Your task to perform on an android device: delete location history Image 0: 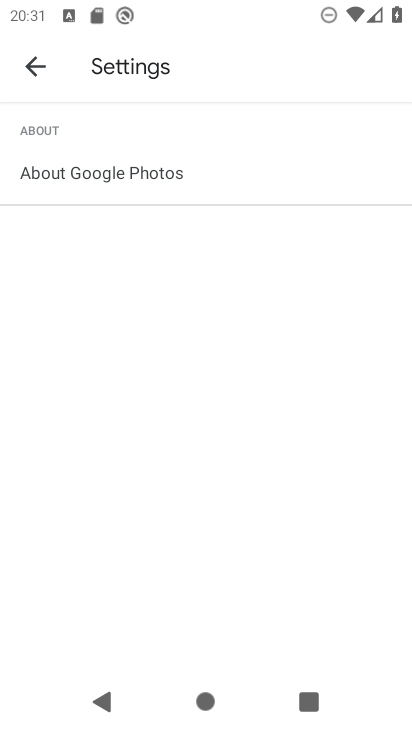
Step 0: press home button
Your task to perform on an android device: delete location history Image 1: 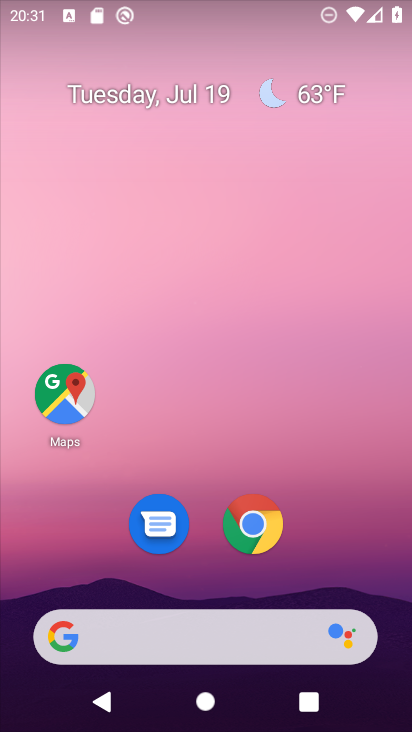
Step 1: click (57, 408)
Your task to perform on an android device: delete location history Image 2: 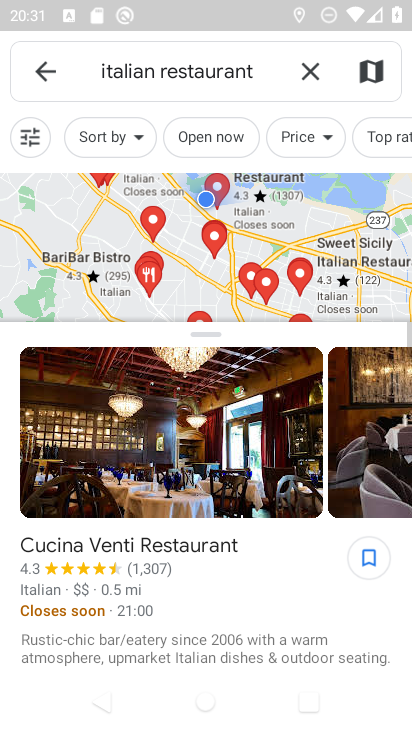
Step 2: click (39, 69)
Your task to perform on an android device: delete location history Image 3: 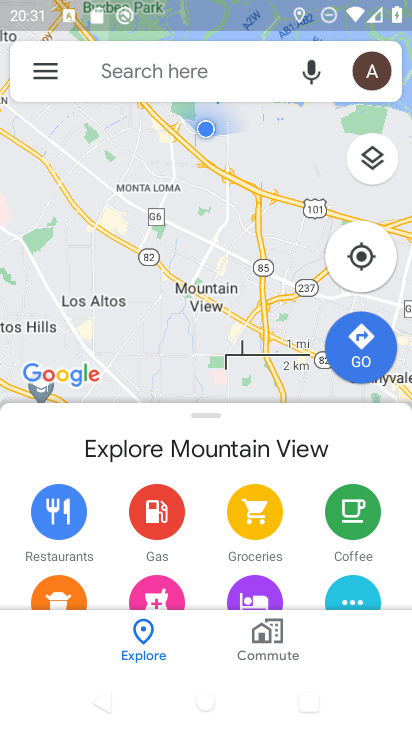
Step 3: click (39, 69)
Your task to perform on an android device: delete location history Image 4: 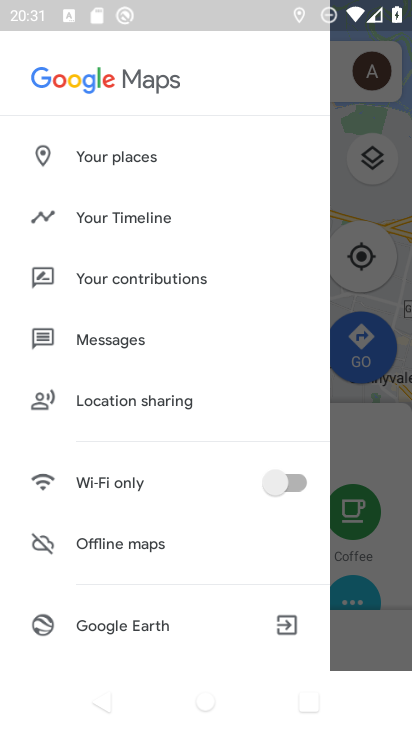
Step 4: click (126, 213)
Your task to perform on an android device: delete location history Image 5: 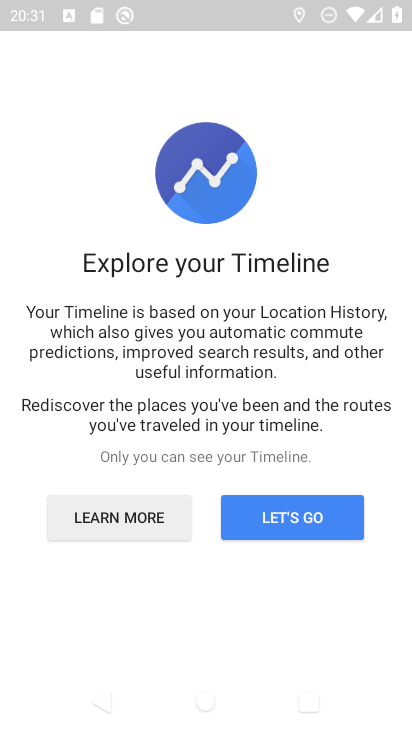
Step 5: click (291, 515)
Your task to perform on an android device: delete location history Image 6: 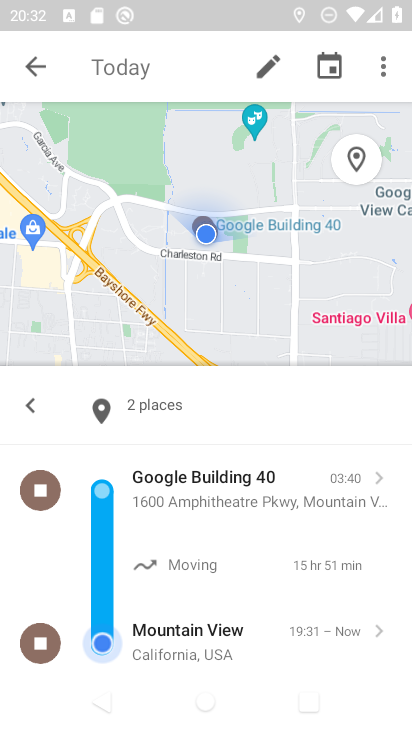
Step 6: click (380, 71)
Your task to perform on an android device: delete location history Image 7: 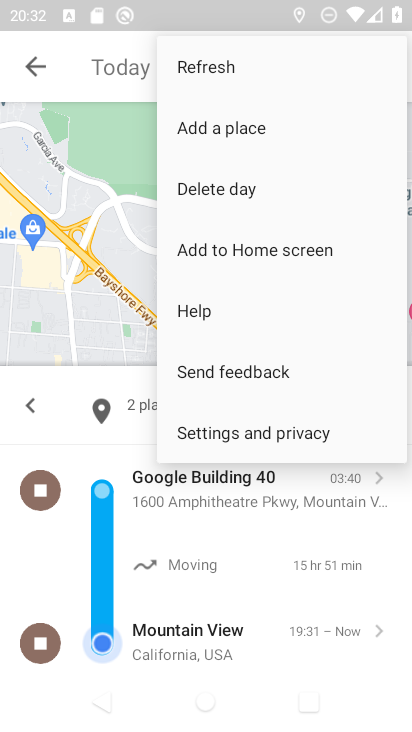
Step 7: click (291, 433)
Your task to perform on an android device: delete location history Image 8: 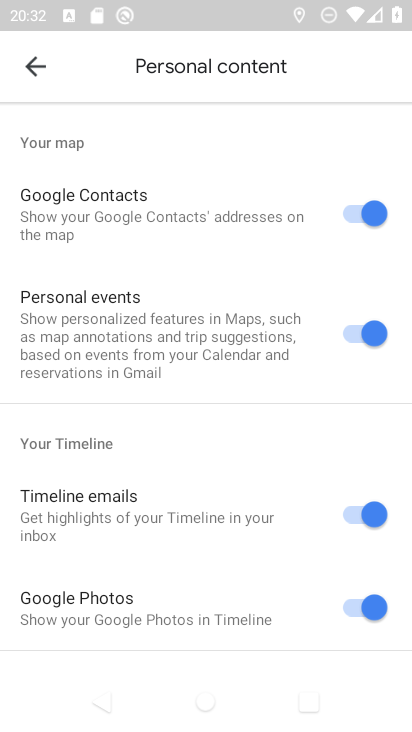
Step 8: drag from (226, 551) to (257, 128)
Your task to perform on an android device: delete location history Image 9: 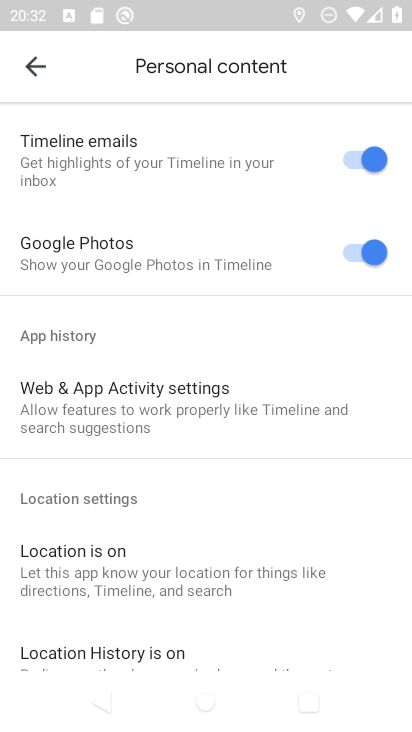
Step 9: drag from (227, 492) to (213, 116)
Your task to perform on an android device: delete location history Image 10: 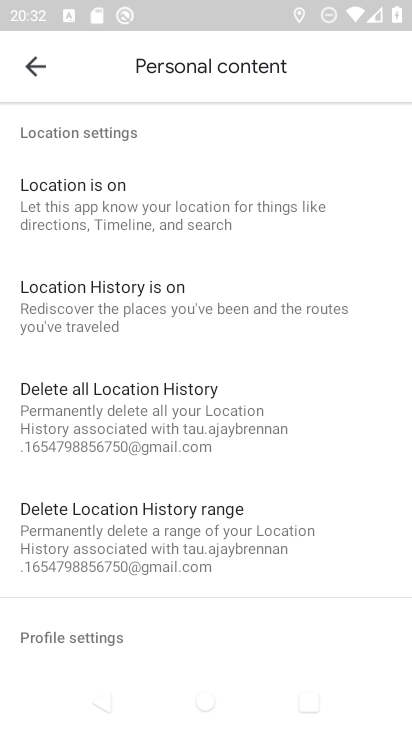
Step 10: click (202, 415)
Your task to perform on an android device: delete location history Image 11: 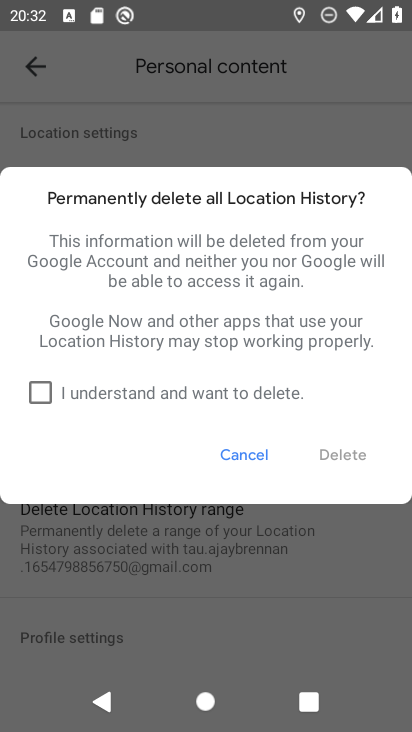
Step 11: click (41, 389)
Your task to perform on an android device: delete location history Image 12: 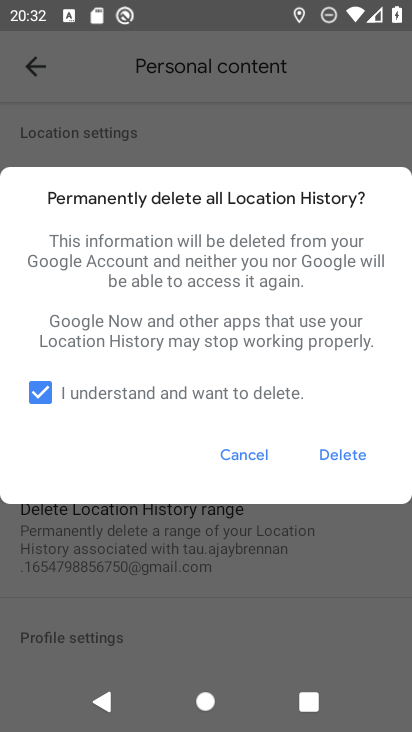
Step 12: click (338, 452)
Your task to perform on an android device: delete location history Image 13: 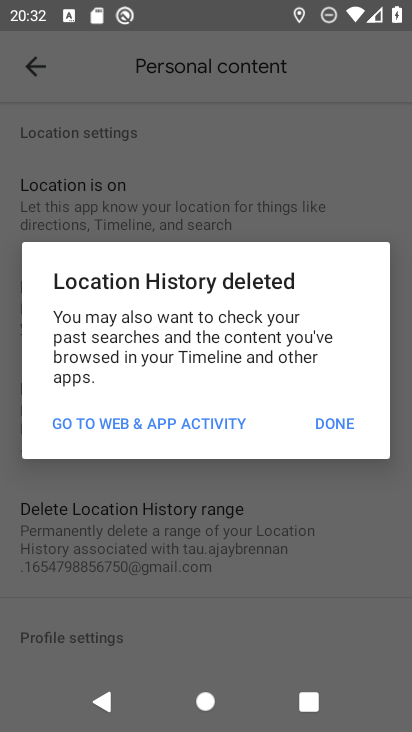
Step 13: click (333, 414)
Your task to perform on an android device: delete location history Image 14: 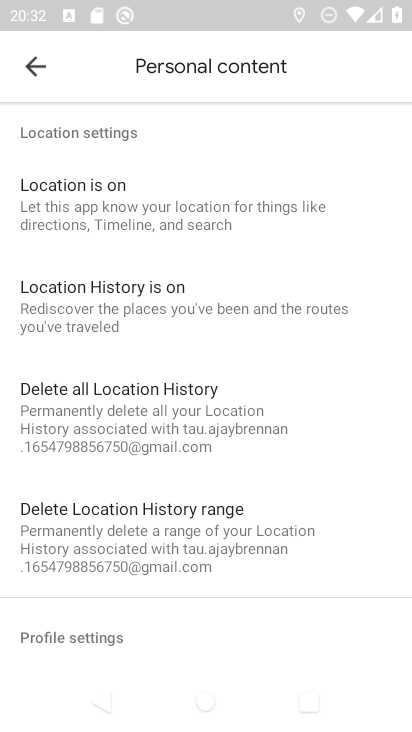
Step 14: task complete